Your task to perform on an android device: How do I get to the nearest T-Mobile Store? Image 0: 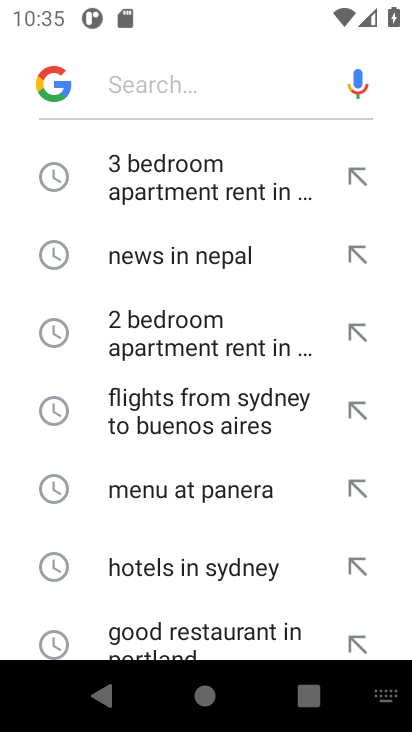
Step 0: type "nearest t-mobile store"
Your task to perform on an android device: How do I get to the nearest T-Mobile Store? Image 1: 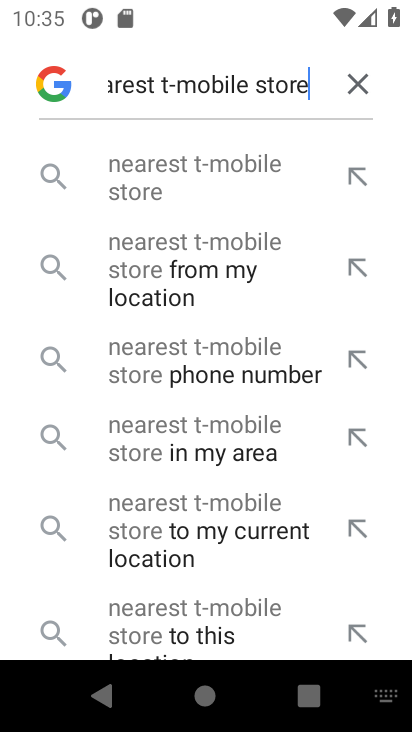
Step 1: press enter
Your task to perform on an android device: How do I get to the nearest T-Mobile Store? Image 2: 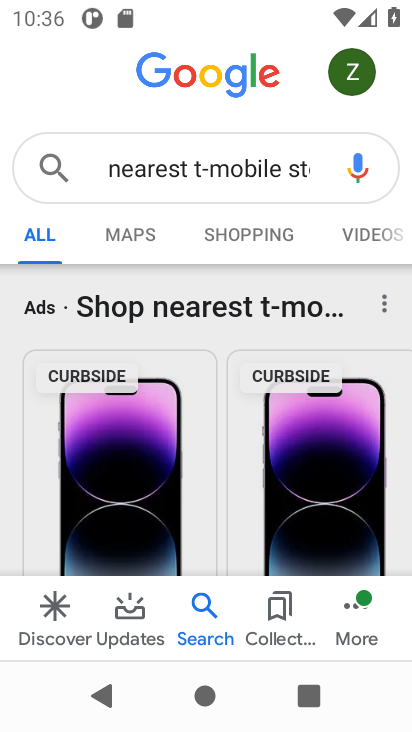
Step 2: drag from (210, 434) to (224, 165)
Your task to perform on an android device: How do I get to the nearest T-Mobile Store? Image 3: 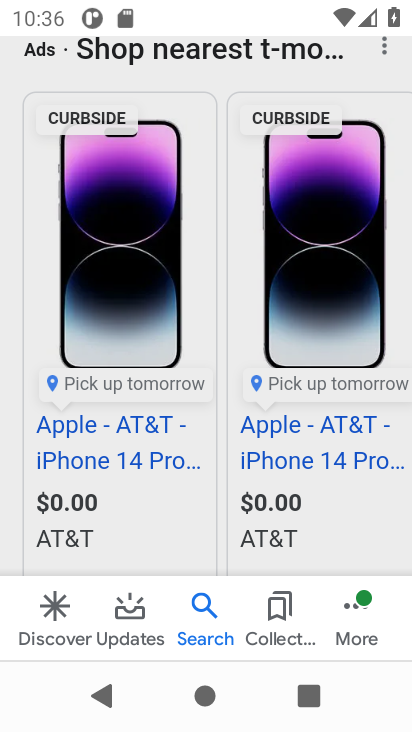
Step 3: drag from (255, 443) to (280, 222)
Your task to perform on an android device: How do I get to the nearest T-Mobile Store? Image 4: 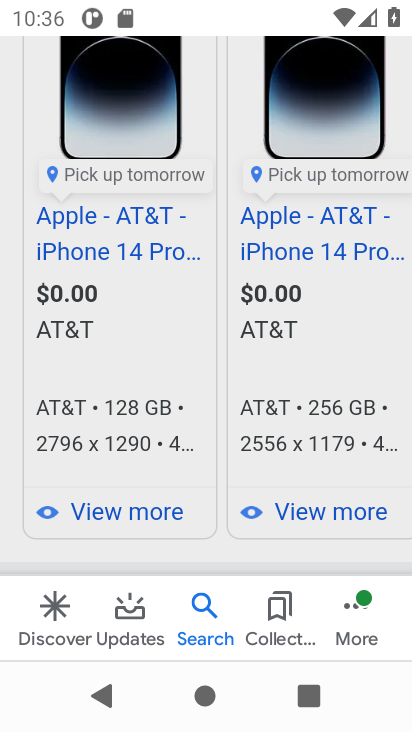
Step 4: drag from (255, 483) to (210, 180)
Your task to perform on an android device: How do I get to the nearest T-Mobile Store? Image 5: 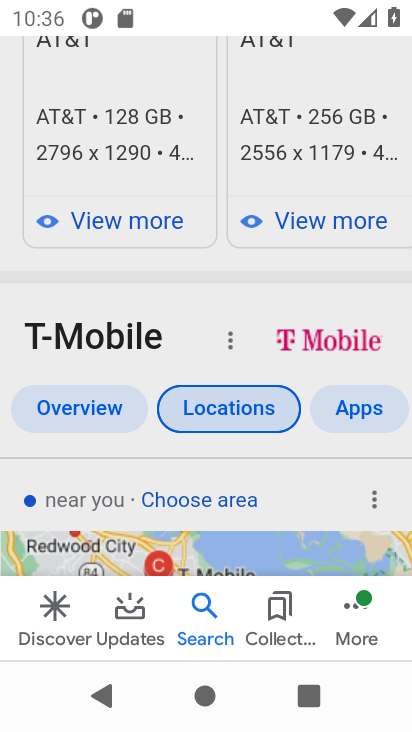
Step 5: drag from (169, 453) to (147, 172)
Your task to perform on an android device: How do I get to the nearest T-Mobile Store? Image 6: 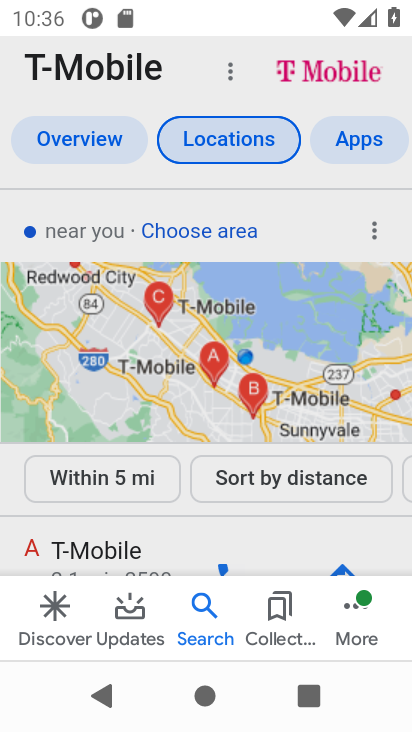
Step 6: drag from (158, 437) to (159, 134)
Your task to perform on an android device: How do I get to the nearest T-Mobile Store? Image 7: 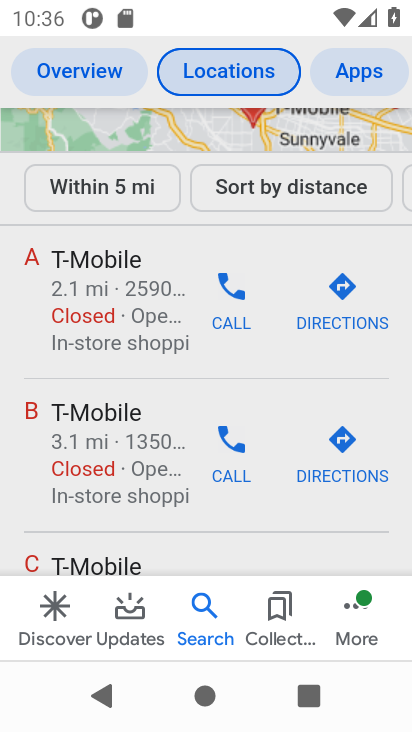
Step 7: drag from (176, 501) to (155, 192)
Your task to perform on an android device: How do I get to the nearest T-Mobile Store? Image 8: 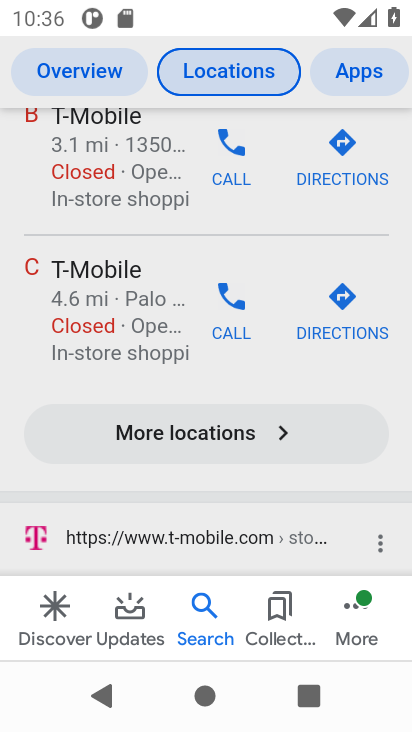
Step 8: drag from (227, 503) to (190, 135)
Your task to perform on an android device: How do I get to the nearest T-Mobile Store? Image 9: 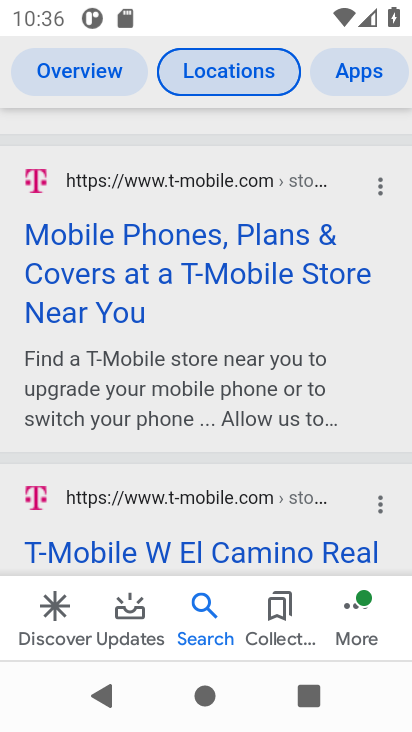
Step 9: drag from (281, 497) to (254, 217)
Your task to perform on an android device: How do I get to the nearest T-Mobile Store? Image 10: 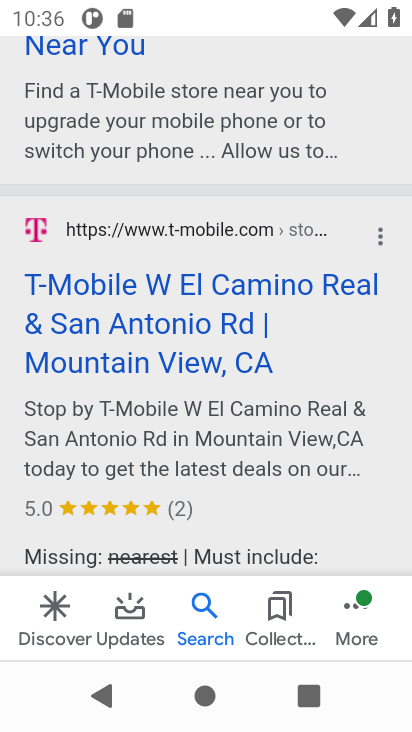
Step 10: drag from (237, 415) to (200, 261)
Your task to perform on an android device: How do I get to the nearest T-Mobile Store? Image 11: 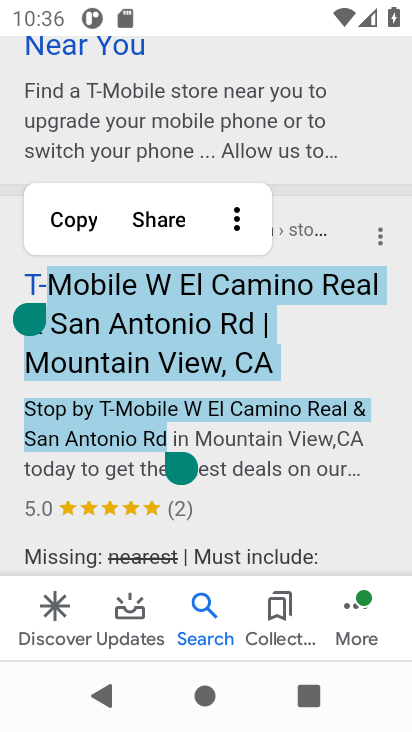
Step 11: drag from (254, 478) to (228, 259)
Your task to perform on an android device: How do I get to the nearest T-Mobile Store? Image 12: 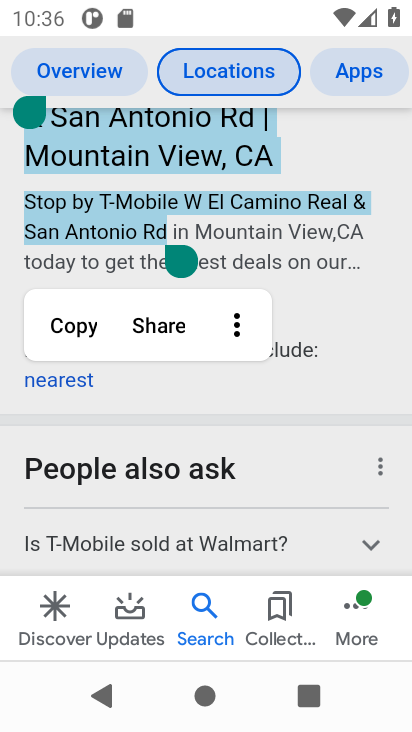
Step 12: click (329, 266)
Your task to perform on an android device: How do I get to the nearest T-Mobile Store? Image 13: 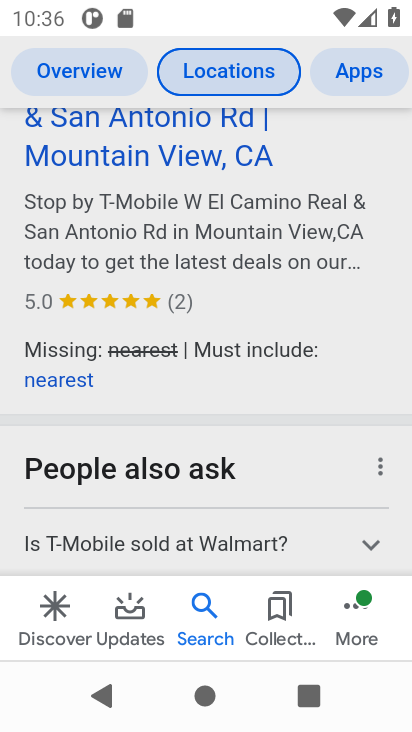
Step 13: task complete